Your task to perform on an android device: Go to Maps Image 0: 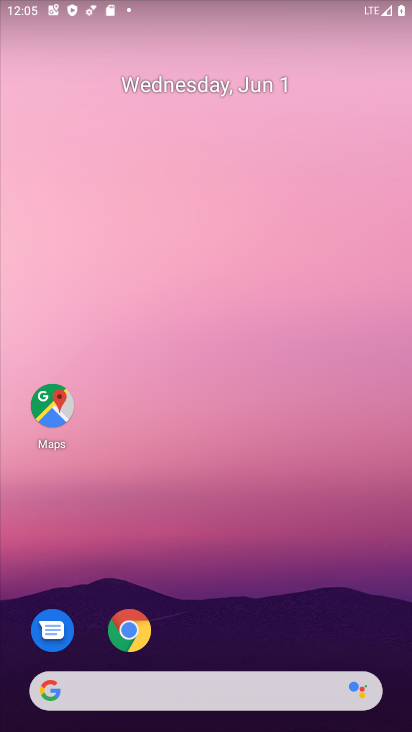
Step 0: click (44, 399)
Your task to perform on an android device: Go to Maps Image 1: 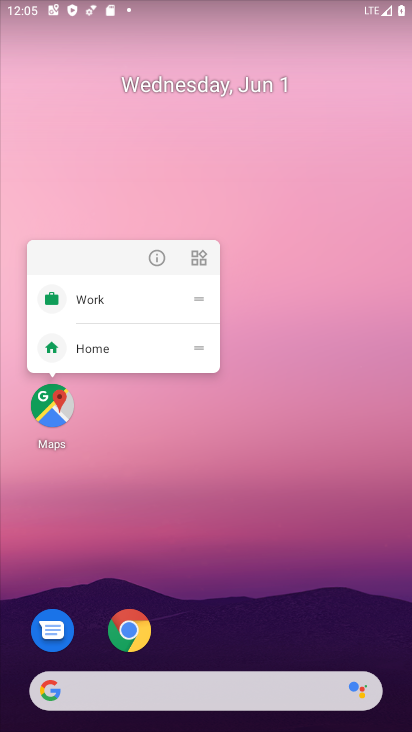
Step 1: click (44, 399)
Your task to perform on an android device: Go to Maps Image 2: 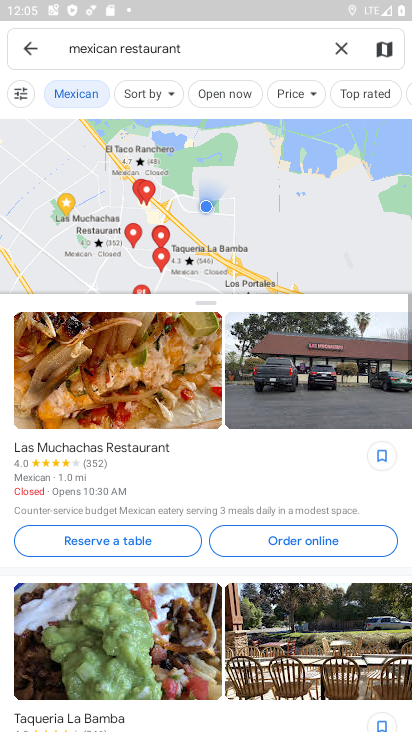
Step 2: click (341, 42)
Your task to perform on an android device: Go to Maps Image 3: 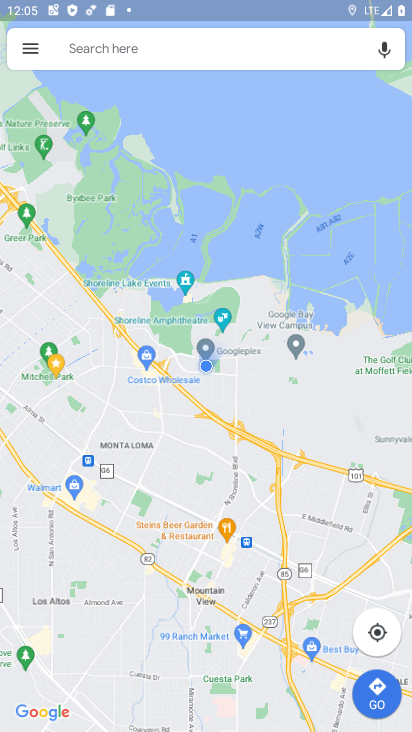
Step 3: task complete